Your task to perform on an android device: Open my contact list Image 0: 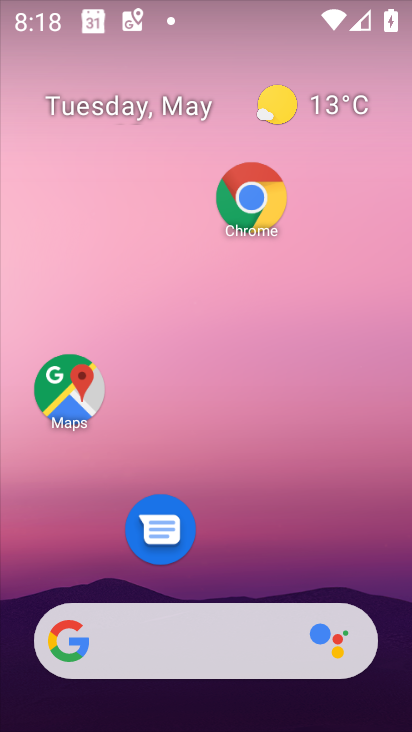
Step 0: drag from (336, 555) to (354, 99)
Your task to perform on an android device: Open my contact list Image 1: 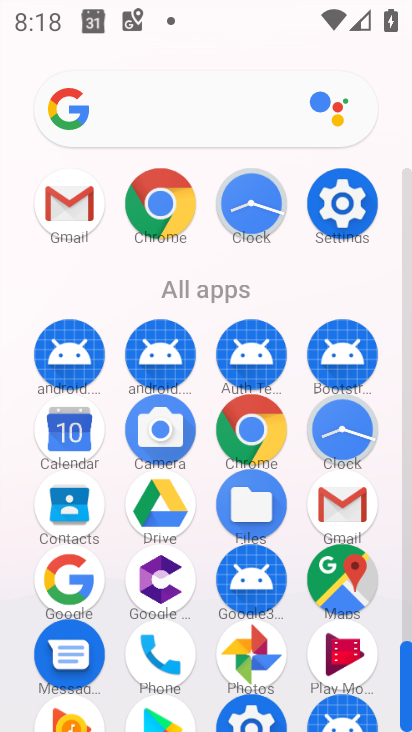
Step 1: click (80, 502)
Your task to perform on an android device: Open my contact list Image 2: 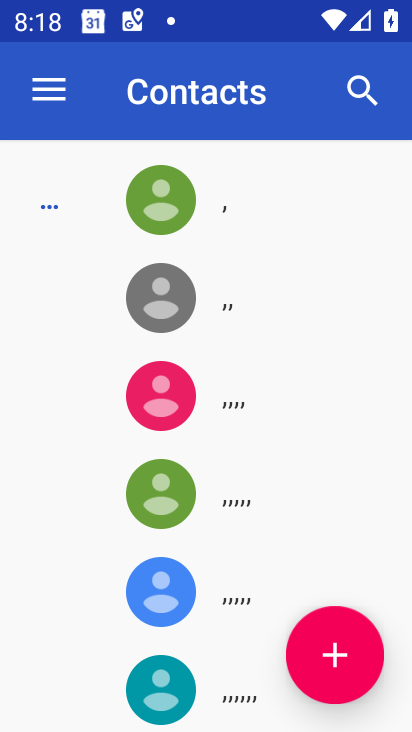
Step 2: task complete